Your task to perform on an android device: find photos in the google photos app Image 0: 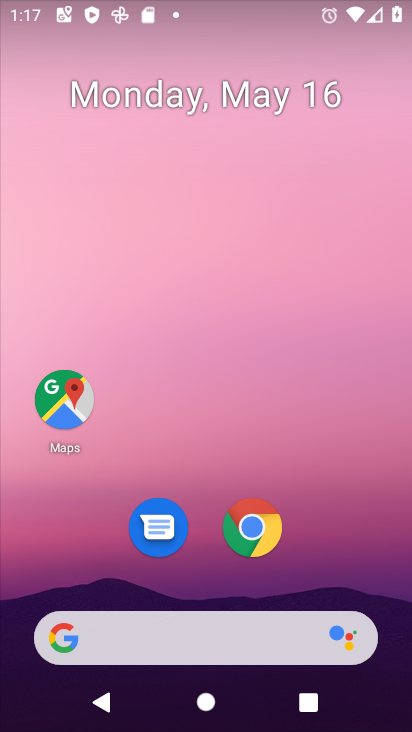
Step 0: drag from (317, 574) to (242, 155)
Your task to perform on an android device: find photos in the google photos app Image 1: 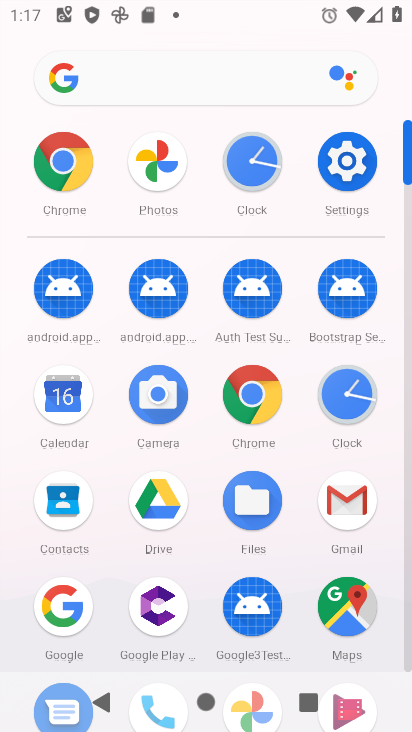
Step 1: click (152, 199)
Your task to perform on an android device: find photos in the google photos app Image 2: 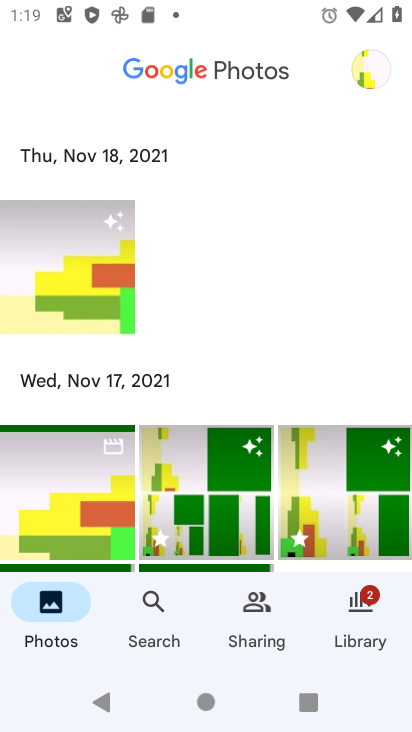
Step 2: task complete